Your task to perform on an android device: Do I have any events tomorrow? Image 0: 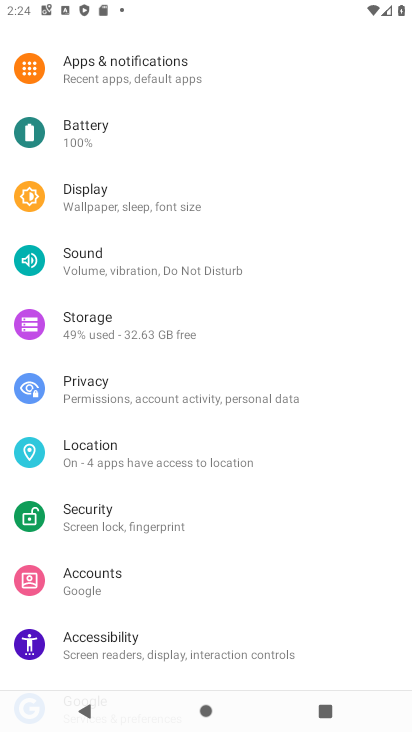
Step 0: press home button
Your task to perform on an android device: Do I have any events tomorrow? Image 1: 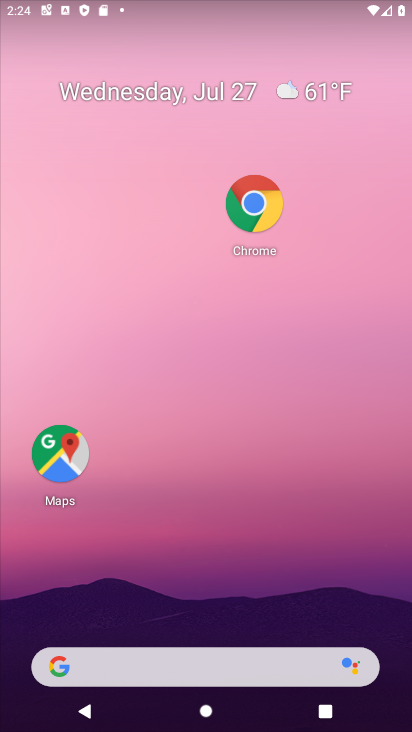
Step 1: drag from (176, 609) to (222, 117)
Your task to perform on an android device: Do I have any events tomorrow? Image 2: 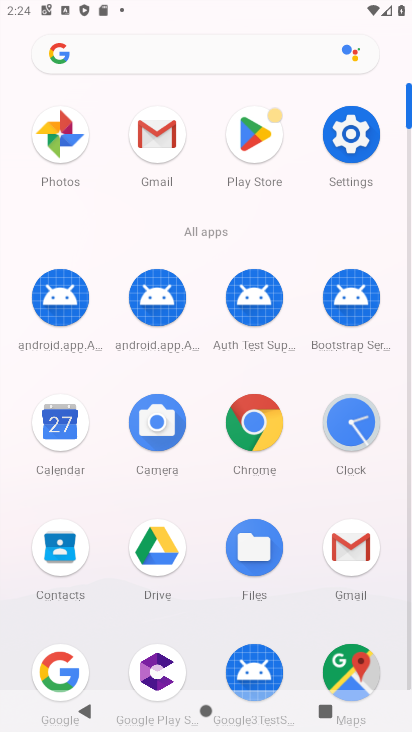
Step 2: click (63, 437)
Your task to perform on an android device: Do I have any events tomorrow? Image 3: 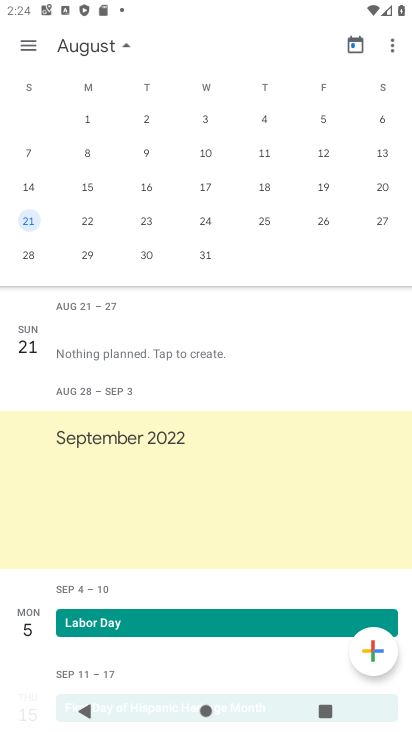
Step 3: drag from (78, 154) to (375, 185)
Your task to perform on an android device: Do I have any events tomorrow? Image 4: 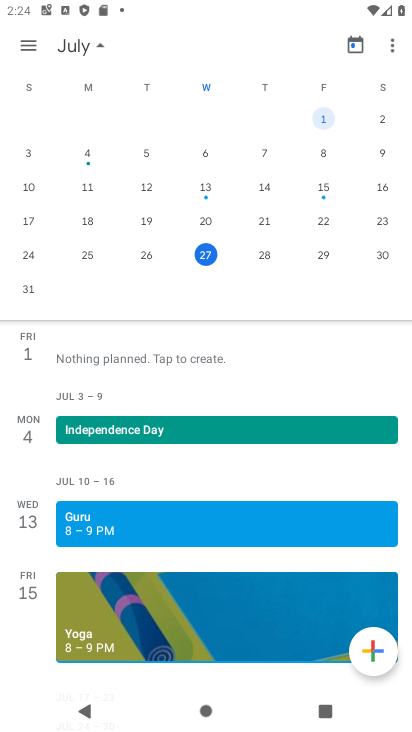
Step 4: click (269, 259)
Your task to perform on an android device: Do I have any events tomorrow? Image 5: 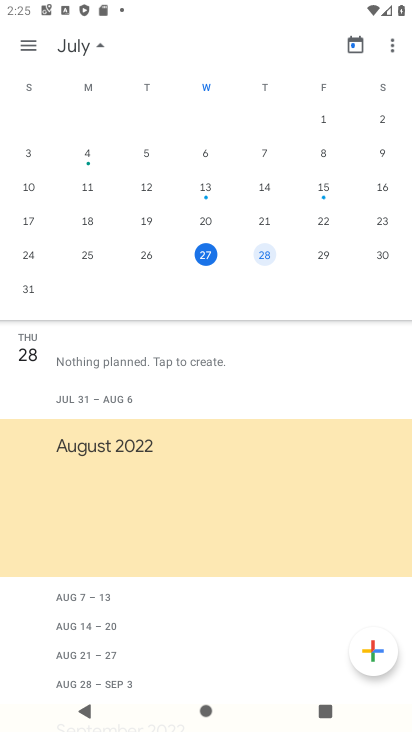
Step 5: click (261, 261)
Your task to perform on an android device: Do I have any events tomorrow? Image 6: 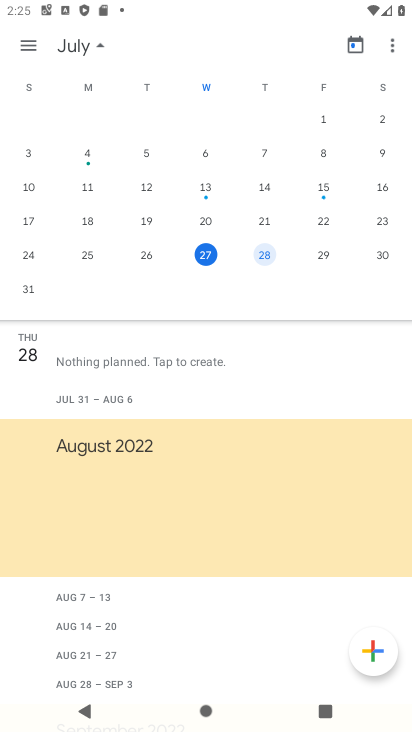
Step 6: task complete